Your task to perform on an android device: turn notification dots off Image 0: 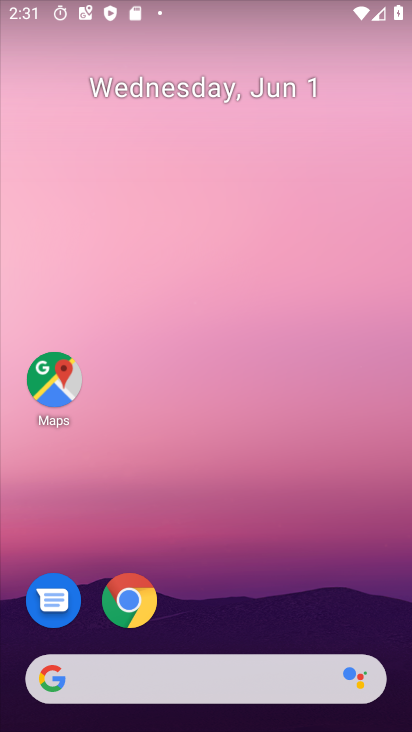
Step 0: drag from (207, 722) to (110, 297)
Your task to perform on an android device: turn notification dots off Image 1: 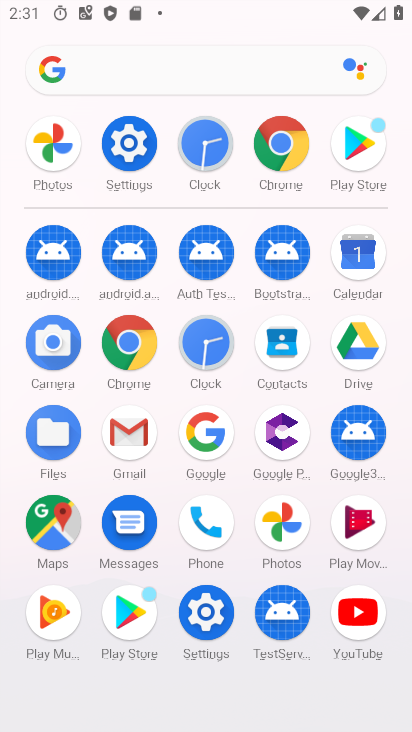
Step 1: click (200, 611)
Your task to perform on an android device: turn notification dots off Image 2: 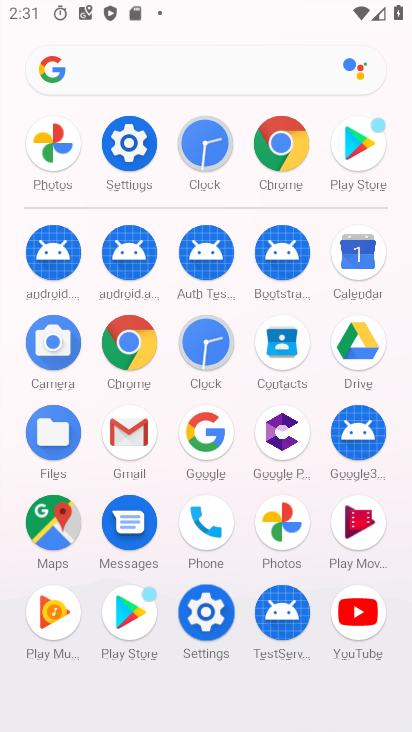
Step 2: click (202, 611)
Your task to perform on an android device: turn notification dots off Image 3: 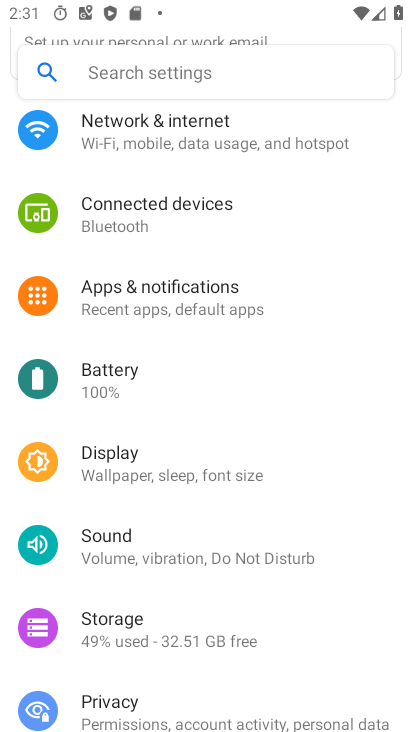
Step 3: click (161, 297)
Your task to perform on an android device: turn notification dots off Image 4: 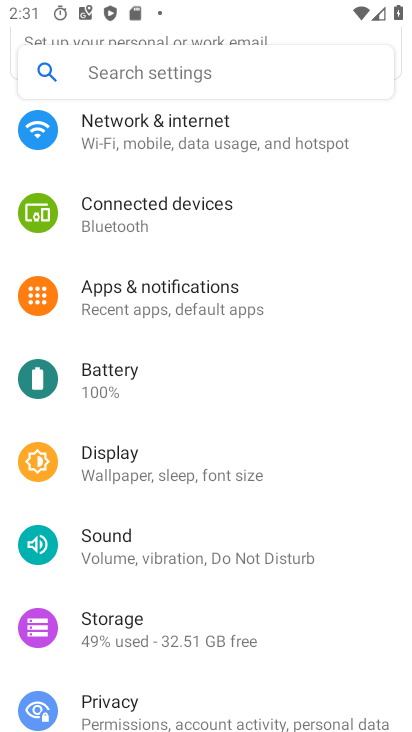
Step 4: click (162, 298)
Your task to perform on an android device: turn notification dots off Image 5: 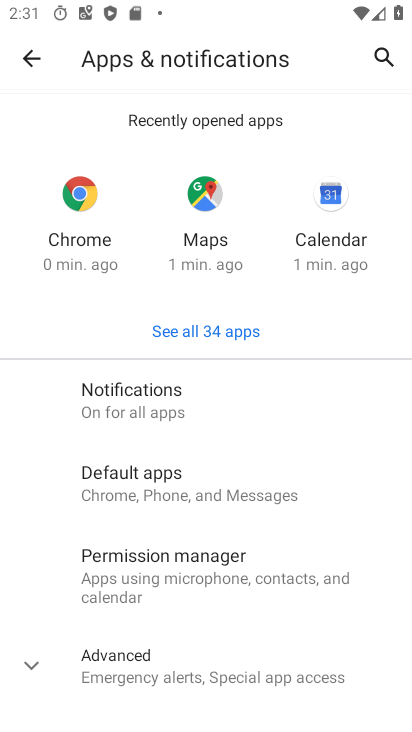
Step 5: click (140, 409)
Your task to perform on an android device: turn notification dots off Image 6: 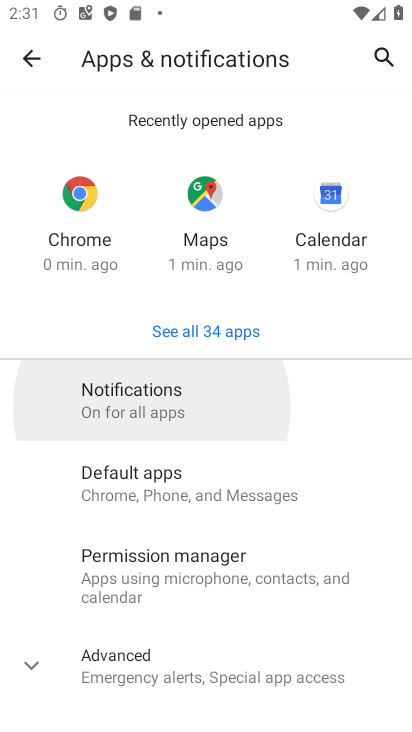
Step 6: click (139, 409)
Your task to perform on an android device: turn notification dots off Image 7: 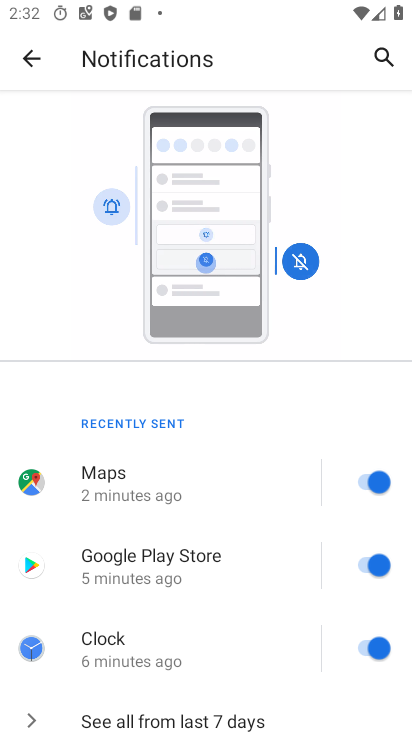
Step 7: drag from (157, 550) to (129, 287)
Your task to perform on an android device: turn notification dots off Image 8: 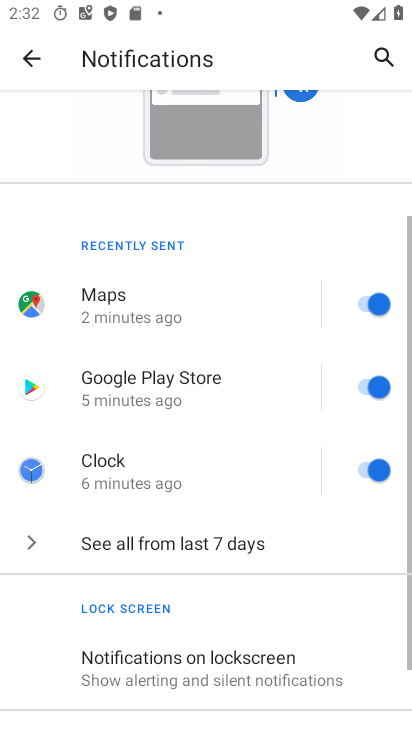
Step 8: drag from (168, 508) to (182, 335)
Your task to perform on an android device: turn notification dots off Image 9: 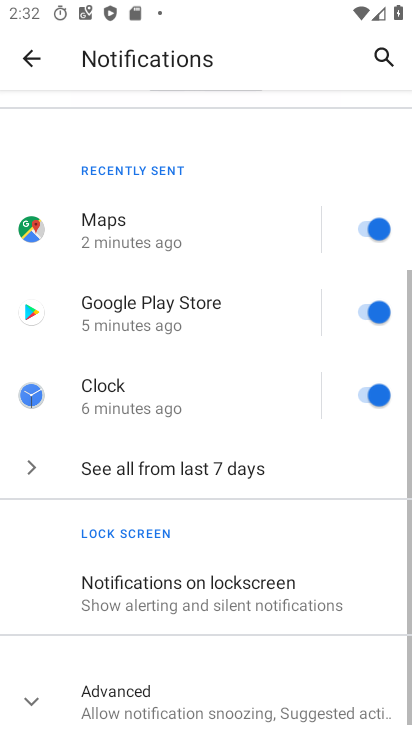
Step 9: drag from (183, 462) to (181, 307)
Your task to perform on an android device: turn notification dots off Image 10: 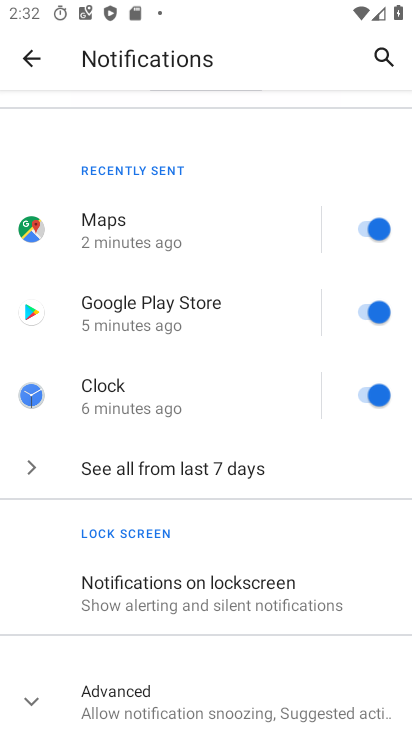
Step 10: click (133, 704)
Your task to perform on an android device: turn notification dots off Image 11: 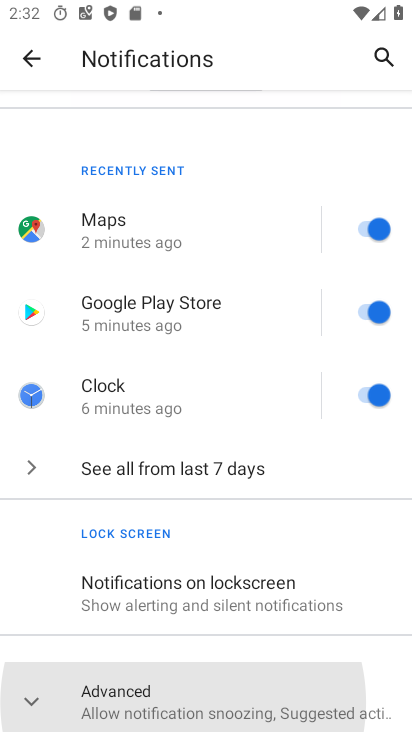
Step 11: click (132, 705)
Your task to perform on an android device: turn notification dots off Image 12: 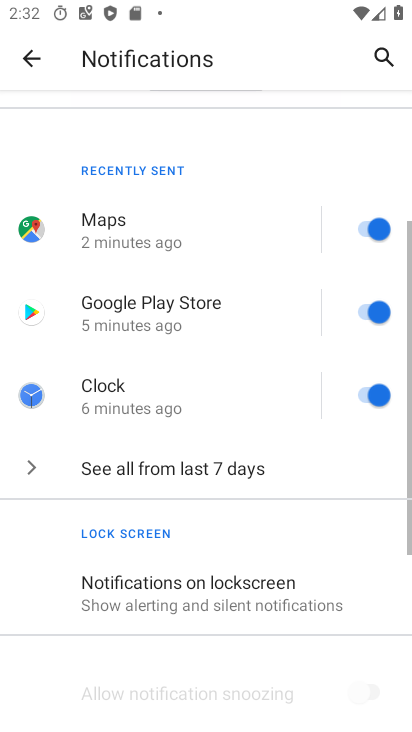
Step 12: click (132, 705)
Your task to perform on an android device: turn notification dots off Image 13: 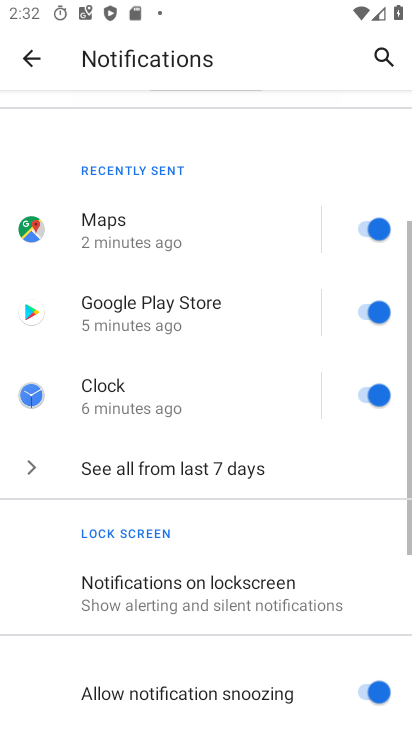
Step 13: drag from (208, 588) to (180, 277)
Your task to perform on an android device: turn notification dots off Image 14: 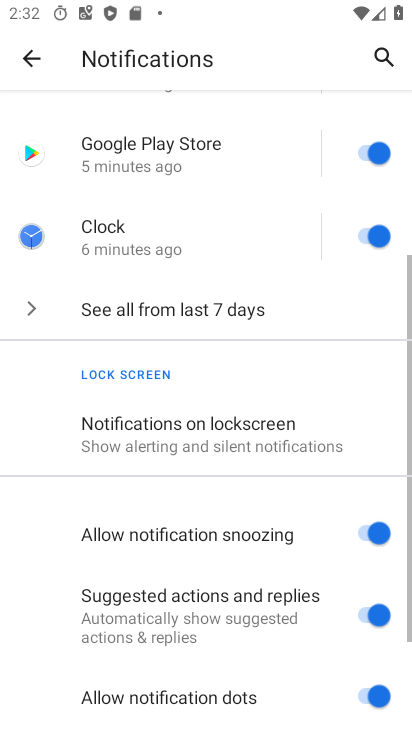
Step 14: drag from (212, 489) to (211, 268)
Your task to perform on an android device: turn notification dots off Image 15: 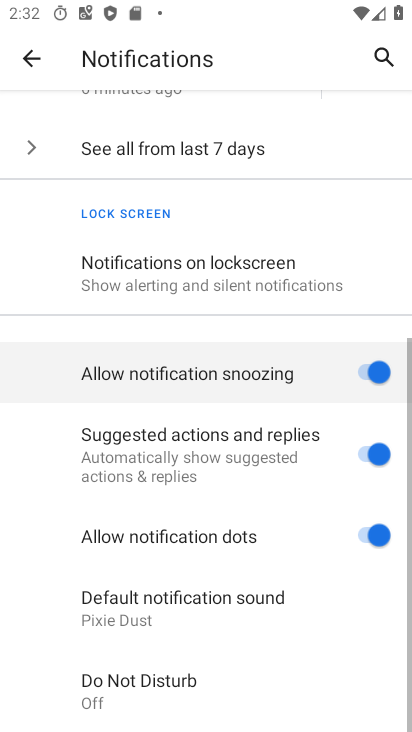
Step 15: drag from (283, 425) to (296, 258)
Your task to perform on an android device: turn notification dots off Image 16: 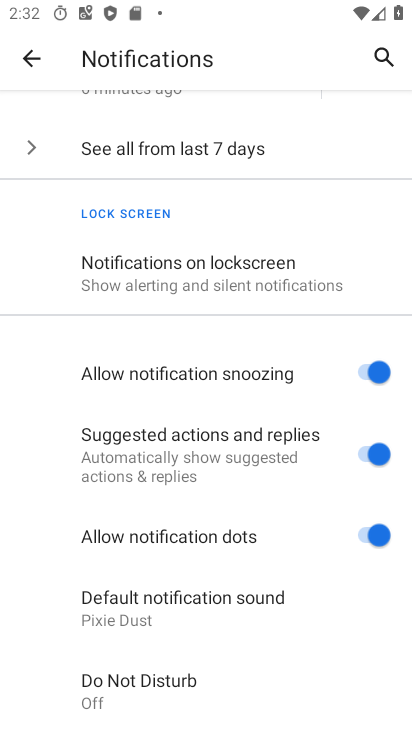
Step 16: click (378, 539)
Your task to perform on an android device: turn notification dots off Image 17: 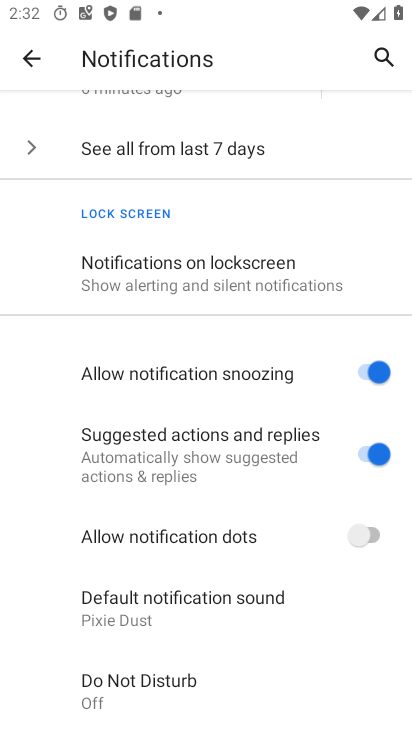
Step 17: task complete